Your task to perform on an android device: turn notification dots off Image 0: 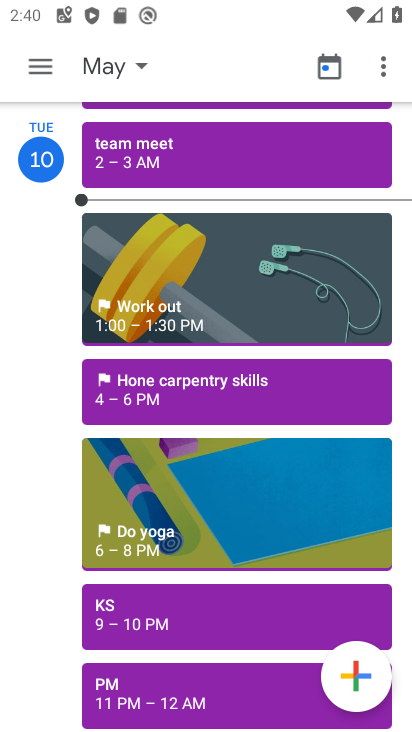
Step 0: press home button
Your task to perform on an android device: turn notification dots off Image 1: 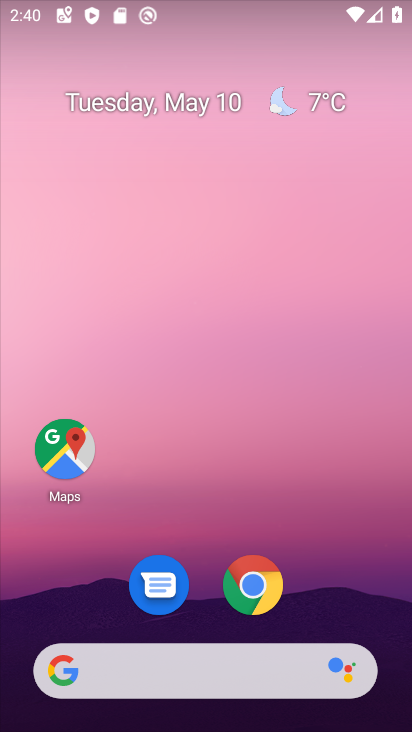
Step 1: drag from (253, 448) to (236, 0)
Your task to perform on an android device: turn notification dots off Image 2: 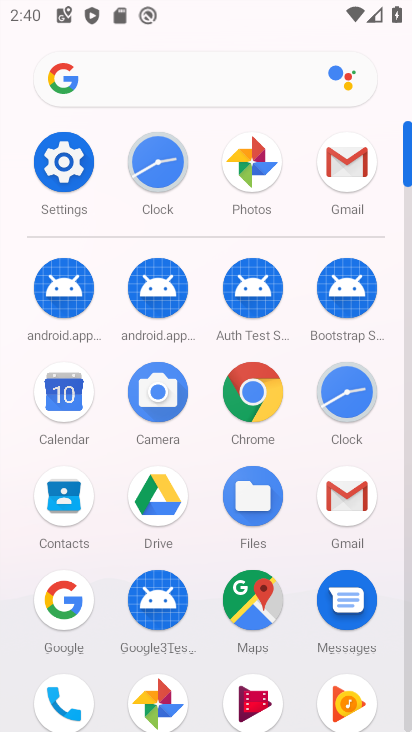
Step 2: click (80, 158)
Your task to perform on an android device: turn notification dots off Image 3: 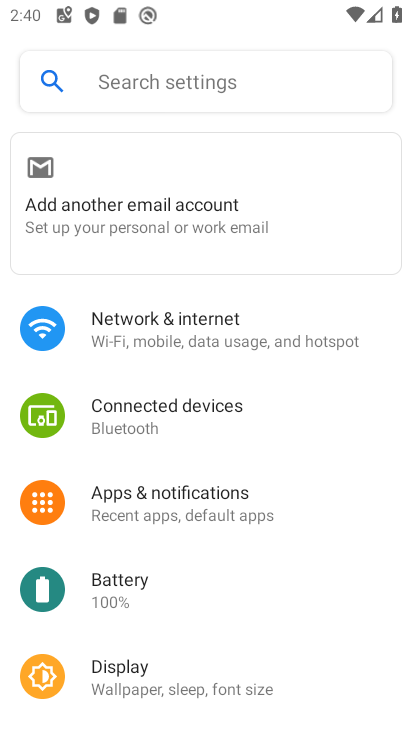
Step 3: click (244, 481)
Your task to perform on an android device: turn notification dots off Image 4: 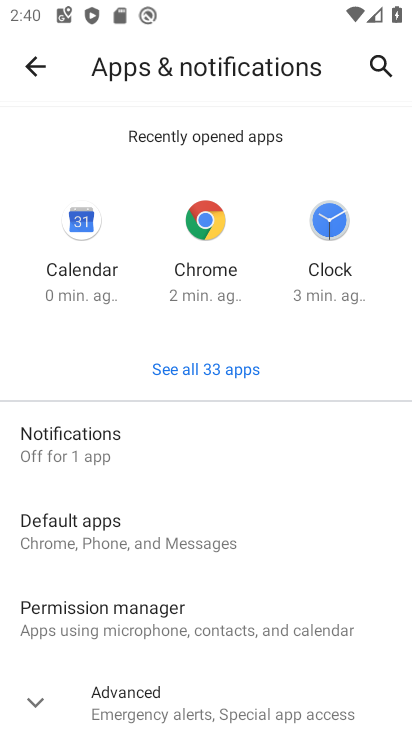
Step 4: click (106, 434)
Your task to perform on an android device: turn notification dots off Image 5: 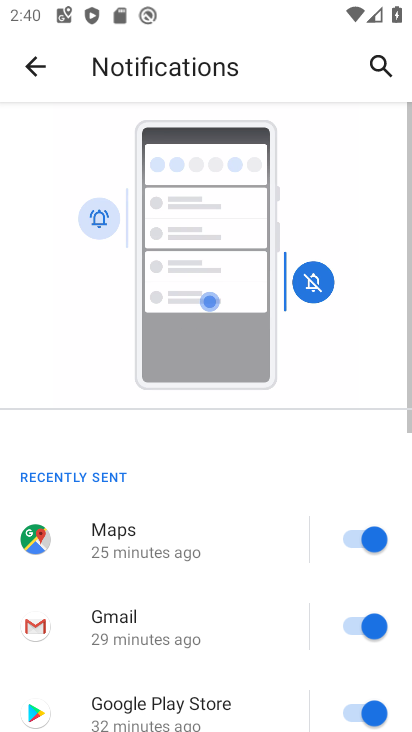
Step 5: drag from (239, 593) to (346, 12)
Your task to perform on an android device: turn notification dots off Image 6: 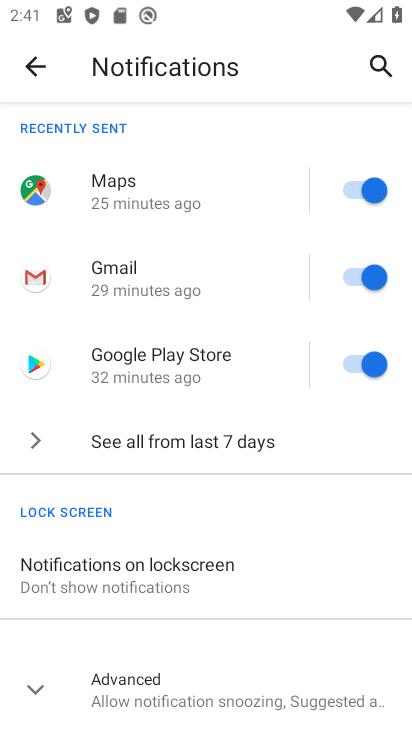
Step 6: click (234, 565)
Your task to perform on an android device: turn notification dots off Image 7: 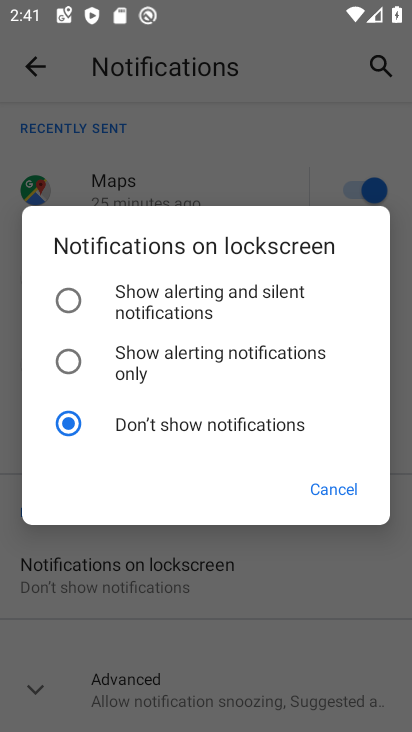
Step 7: click (232, 586)
Your task to perform on an android device: turn notification dots off Image 8: 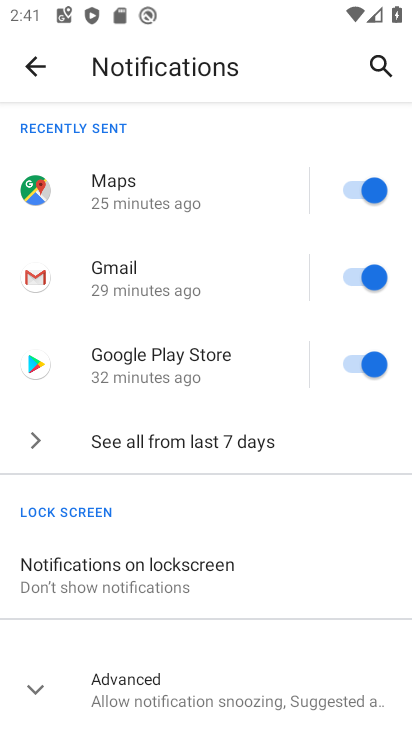
Step 8: click (31, 683)
Your task to perform on an android device: turn notification dots off Image 9: 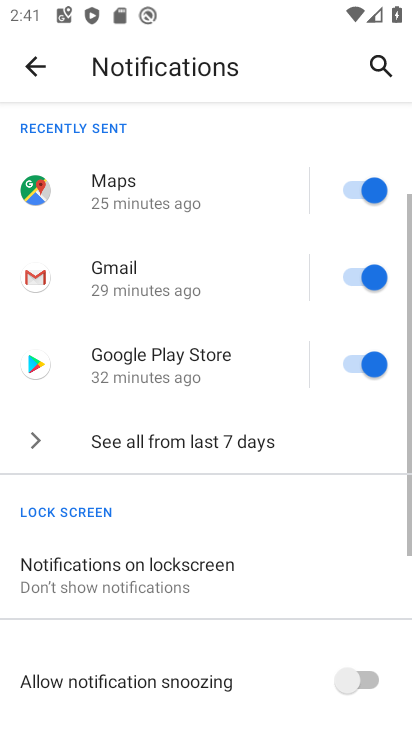
Step 9: drag from (240, 643) to (277, 240)
Your task to perform on an android device: turn notification dots off Image 10: 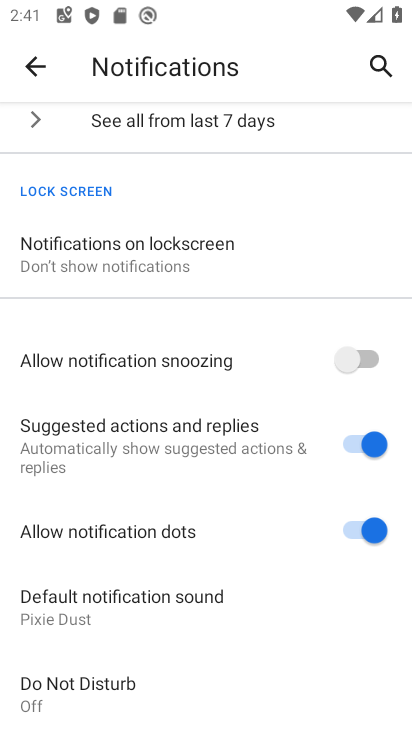
Step 10: click (354, 534)
Your task to perform on an android device: turn notification dots off Image 11: 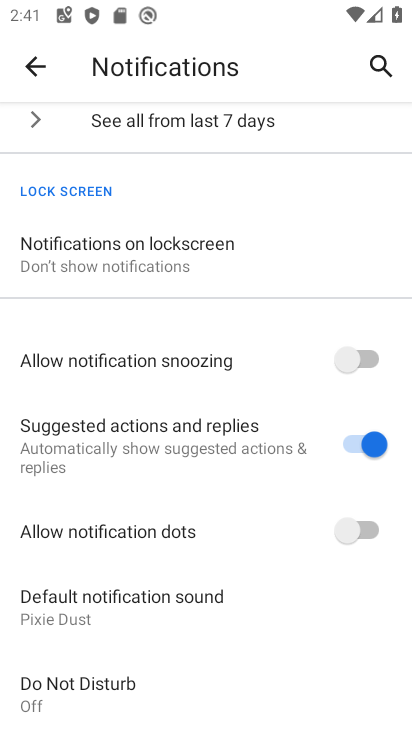
Step 11: task complete